Your task to perform on an android device: Open Wikipedia Image 0: 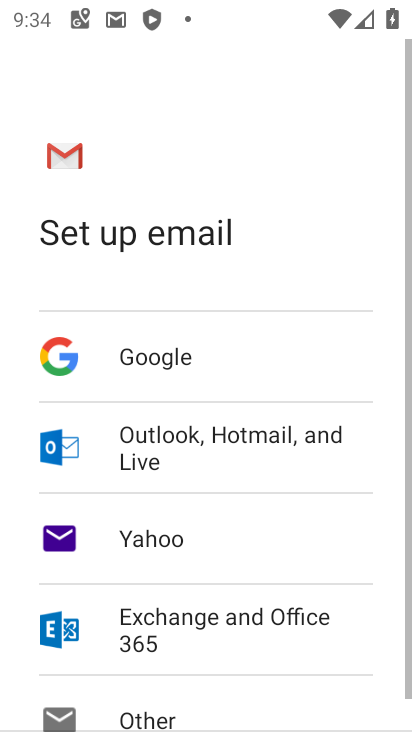
Step 0: press home button
Your task to perform on an android device: Open Wikipedia Image 1: 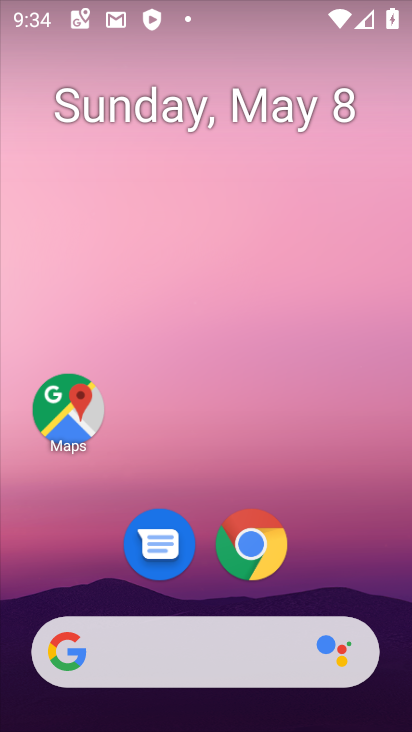
Step 1: click (264, 560)
Your task to perform on an android device: Open Wikipedia Image 2: 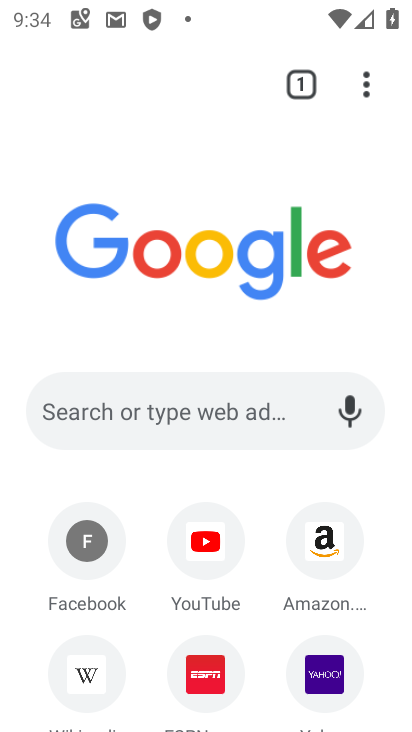
Step 2: click (103, 662)
Your task to perform on an android device: Open Wikipedia Image 3: 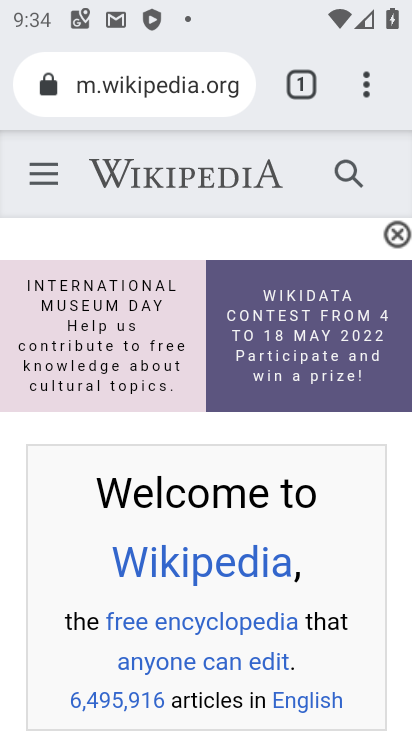
Step 3: task complete